Your task to perform on an android device: delete a single message in the gmail app Image 0: 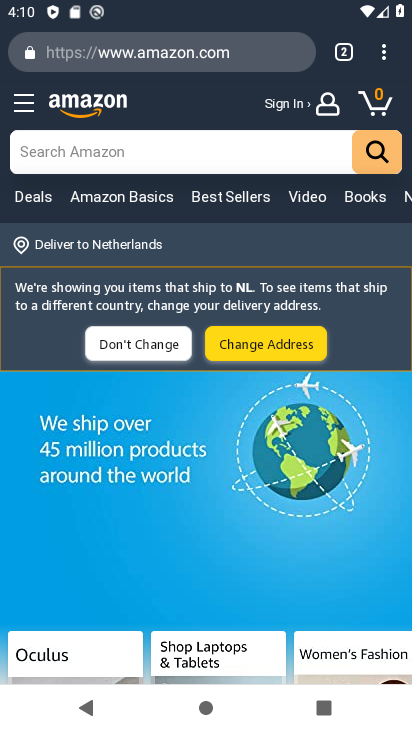
Step 0: press home button
Your task to perform on an android device: delete a single message in the gmail app Image 1: 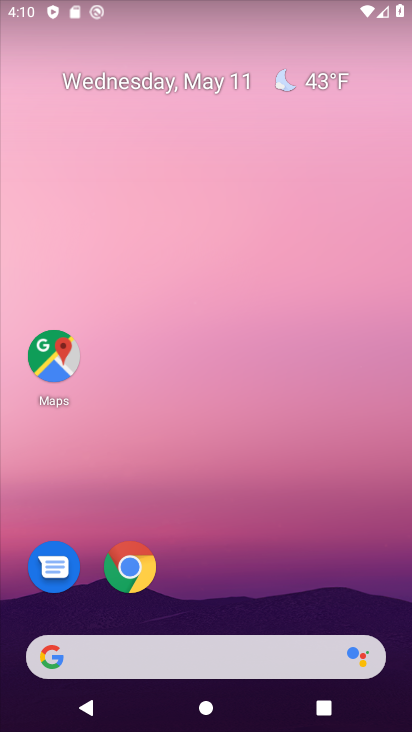
Step 1: drag from (283, 563) to (262, 2)
Your task to perform on an android device: delete a single message in the gmail app Image 2: 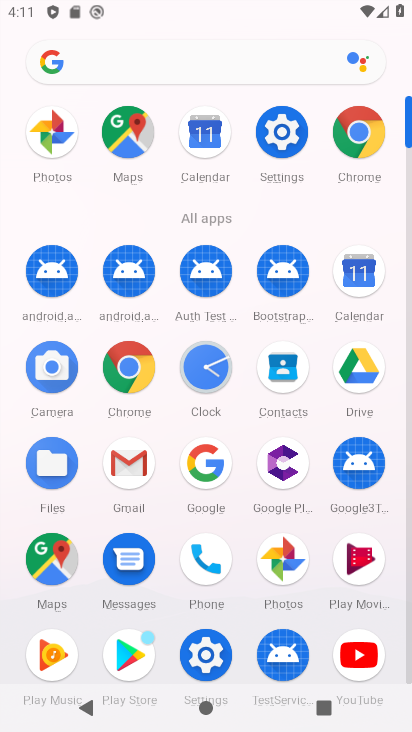
Step 2: click (140, 456)
Your task to perform on an android device: delete a single message in the gmail app Image 3: 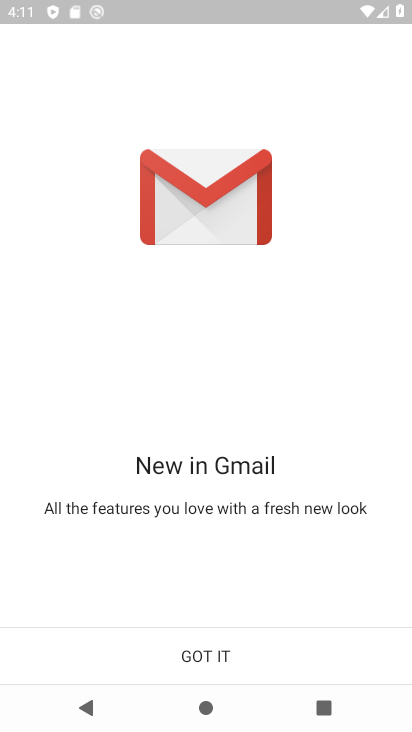
Step 3: click (241, 653)
Your task to perform on an android device: delete a single message in the gmail app Image 4: 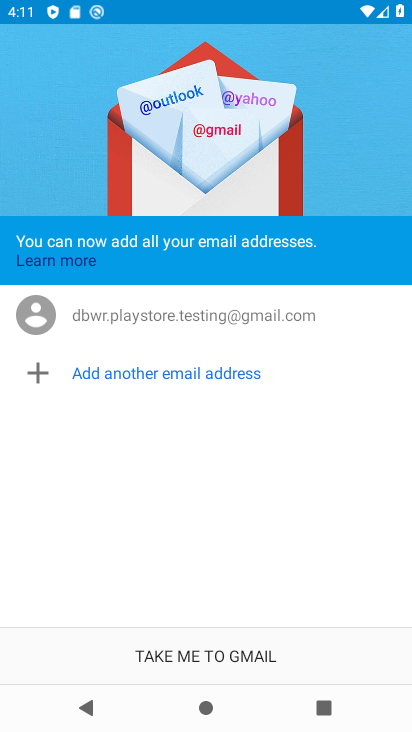
Step 4: click (286, 664)
Your task to perform on an android device: delete a single message in the gmail app Image 5: 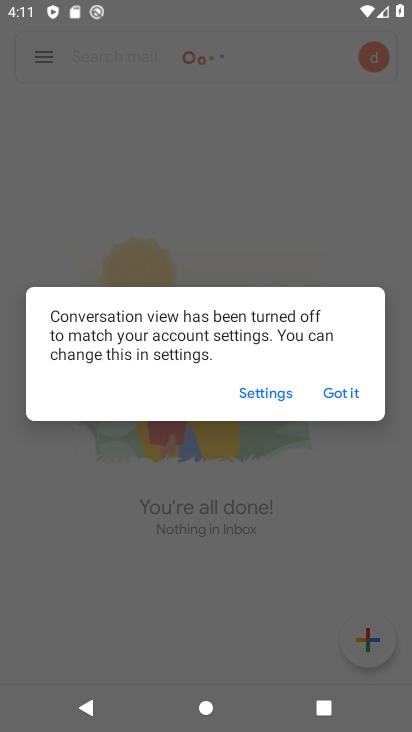
Step 5: click (347, 401)
Your task to perform on an android device: delete a single message in the gmail app Image 6: 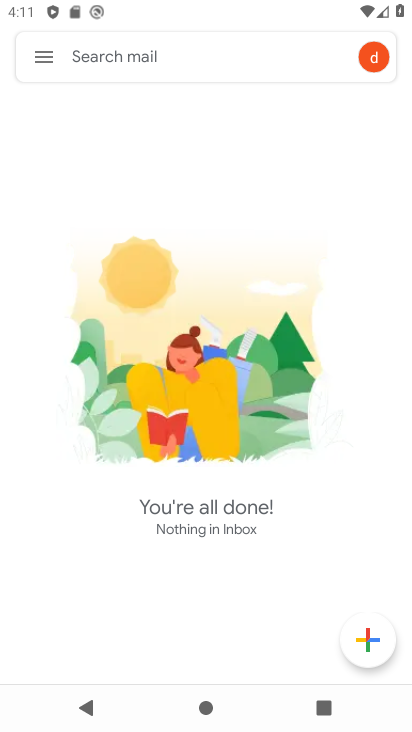
Step 6: press home button
Your task to perform on an android device: delete a single message in the gmail app Image 7: 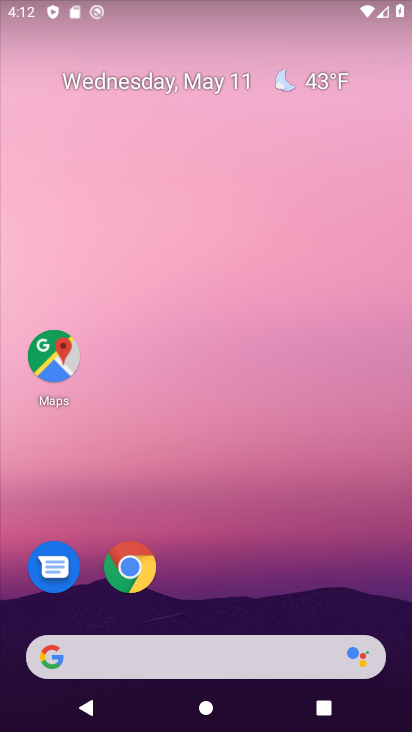
Step 7: drag from (219, 600) to (301, 195)
Your task to perform on an android device: delete a single message in the gmail app Image 8: 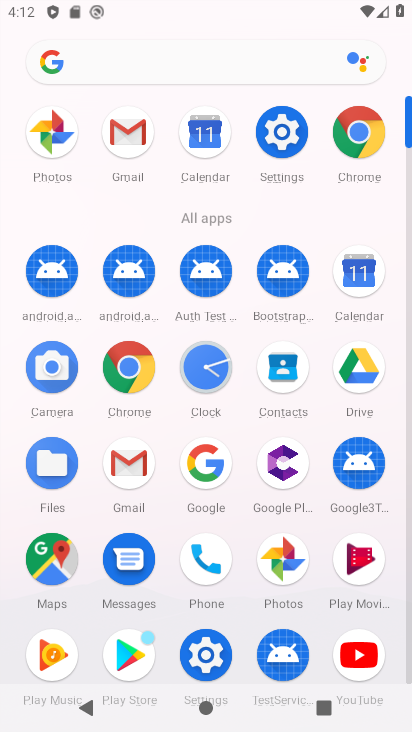
Step 8: click (129, 478)
Your task to perform on an android device: delete a single message in the gmail app Image 9: 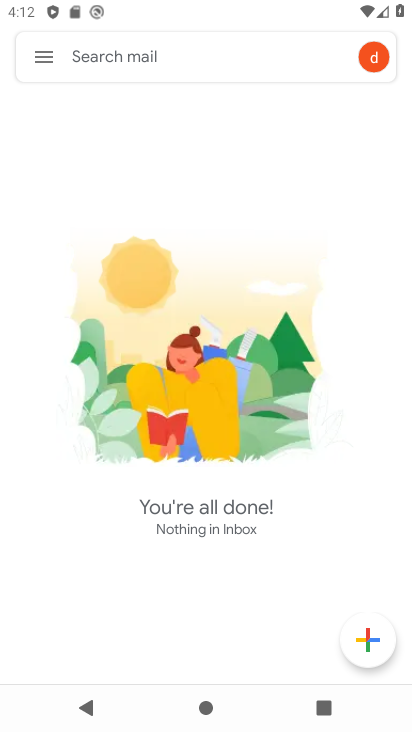
Step 9: click (38, 61)
Your task to perform on an android device: delete a single message in the gmail app Image 10: 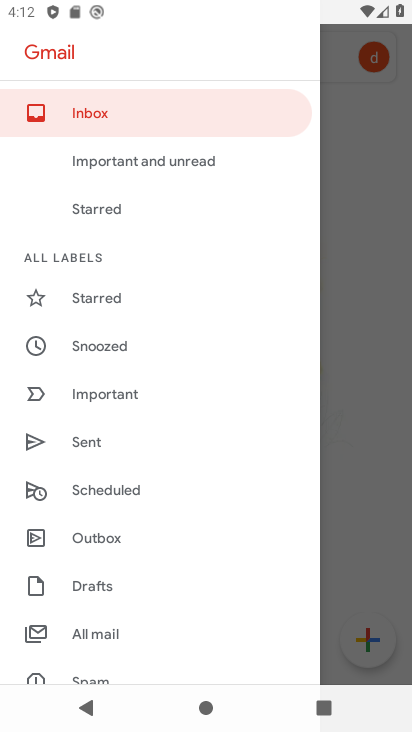
Step 10: drag from (170, 544) to (233, 175)
Your task to perform on an android device: delete a single message in the gmail app Image 11: 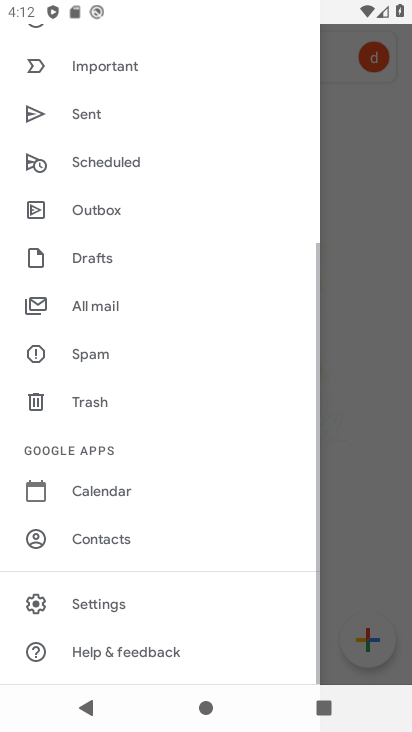
Step 11: click (137, 319)
Your task to perform on an android device: delete a single message in the gmail app Image 12: 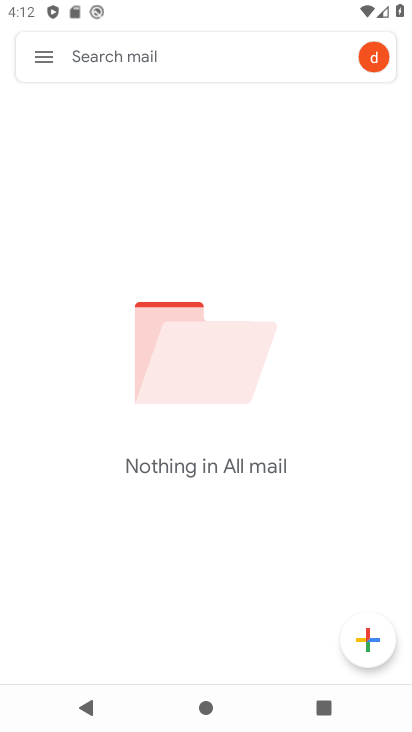
Step 12: task complete